Your task to perform on an android device: open wifi settings Image 0: 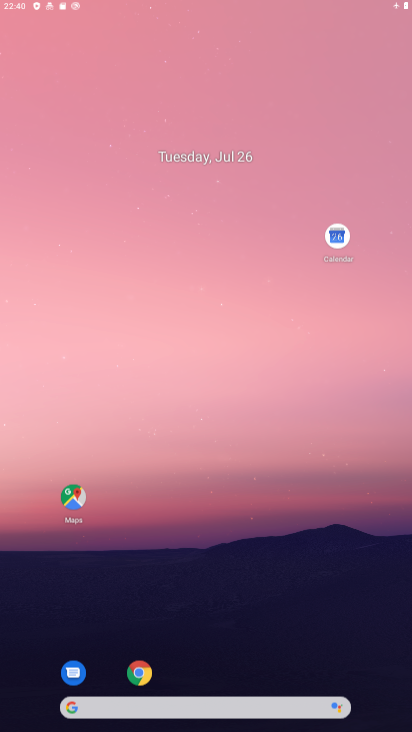
Step 0: click (205, 19)
Your task to perform on an android device: open wifi settings Image 1: 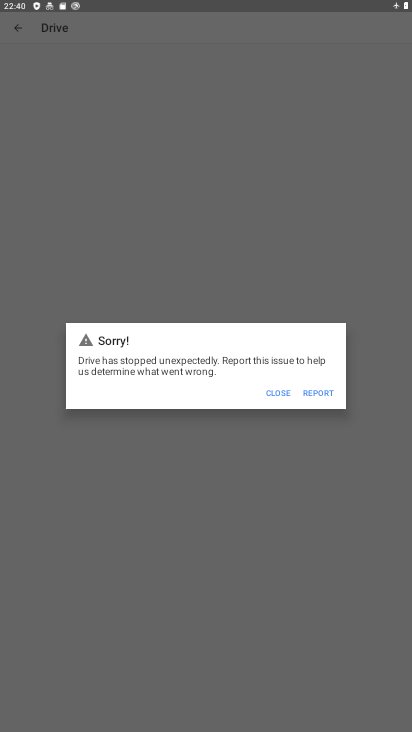
Step 1: drag from (216, 552) to (202, 46)
Your task to perform on an android device: open wifi settings Image 2: 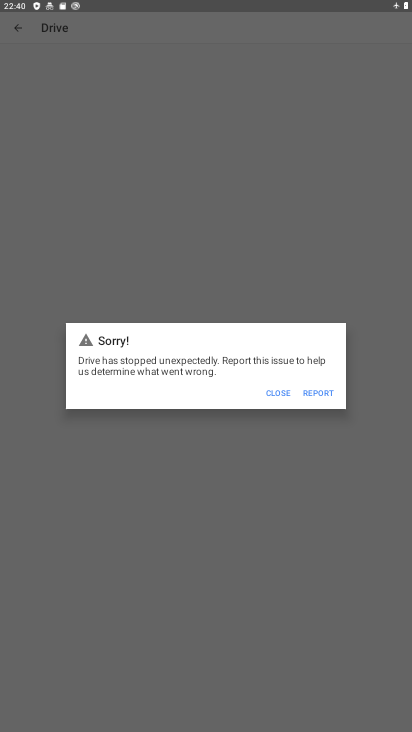
Step 2: drag from (278, 540) to (208, 43)
Your task to perform on an android device: open wifi settings Image 3: 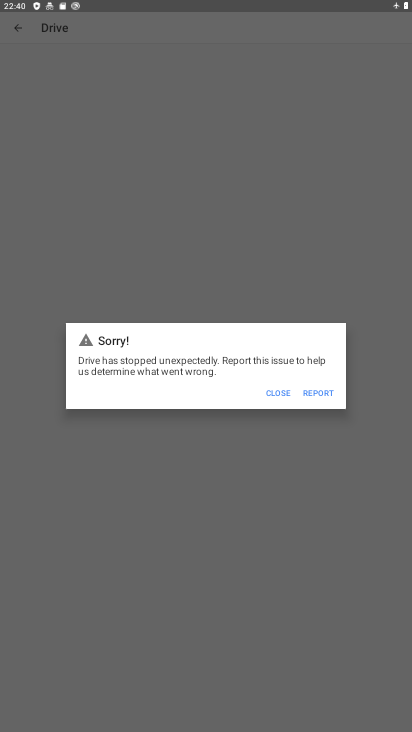
Step 3: click (277, 391)
Your task to perform on an android device: open wifi settings Image 4: 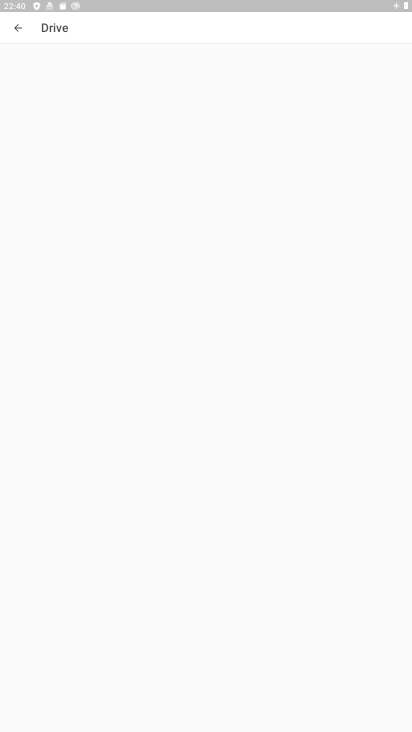
Step 4: click (277, 391)
Your task to perform on an android device: open wifi settings Image 5: 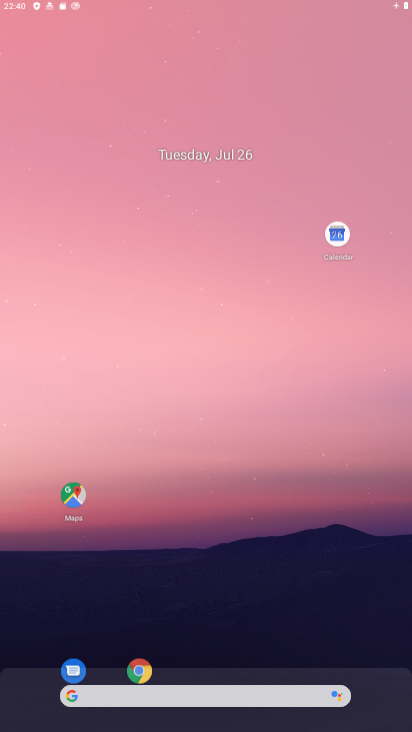
Step 5: drag from (230, 493) to (102, 2)
Your task to perform on an android device: open wifi settings Image 6: 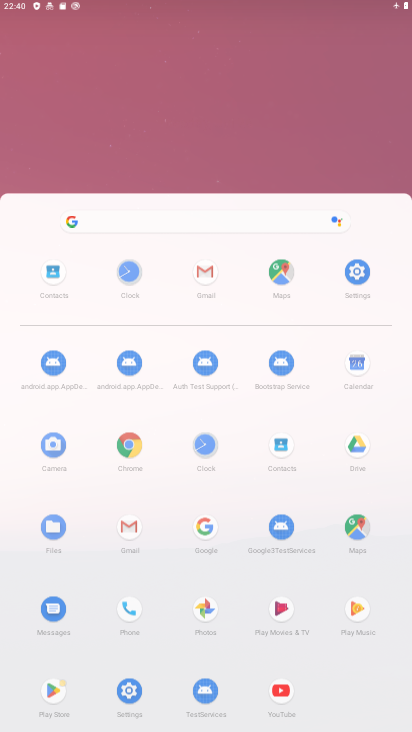
Step 6: click (176, 7)
Your task to perform on an android device: open wifi settings Image 7: 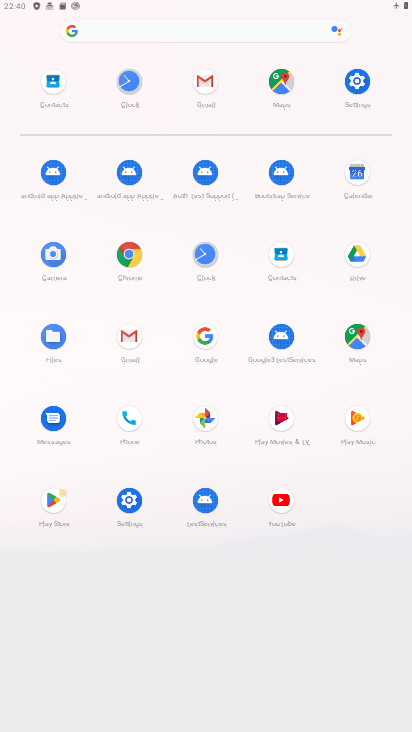
Step 7: drag from (188, 359) to (172, 33)
Your task to perform on an android device: open wifi settings Image 8: 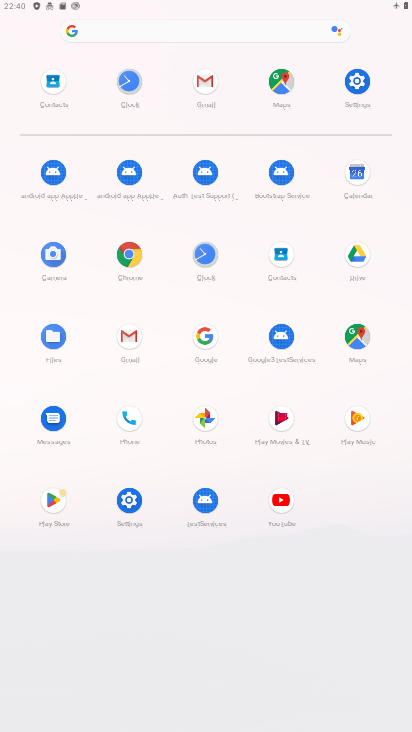
Step 8: click (357, 83)
Your task to perform on an android device: open wifi settings Image 9: 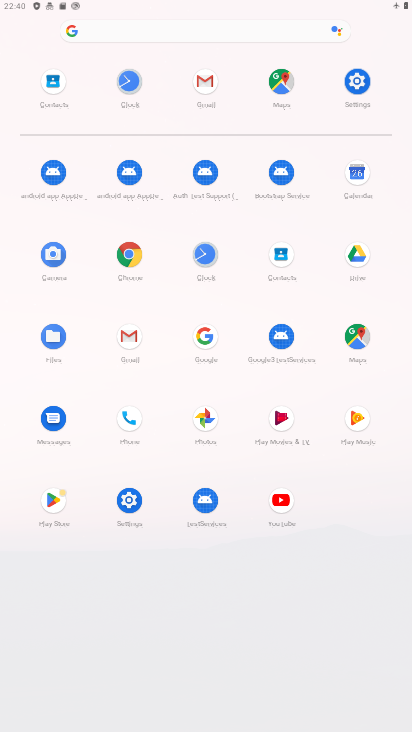
Step 9: click (357, 80)
Your task to perform on an android device: open wifi settings Image 10: 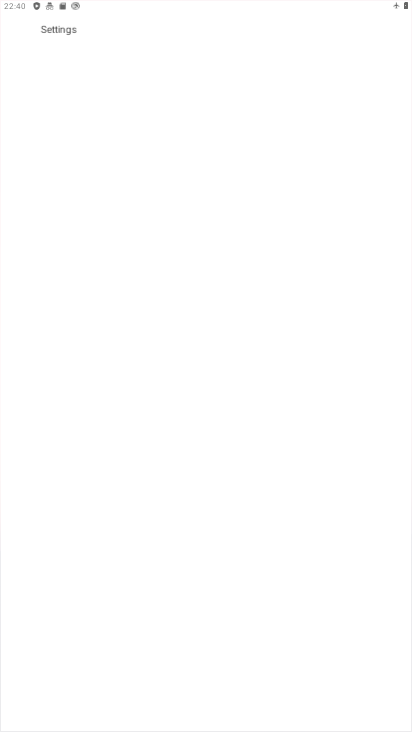
Step 10: click (357, 80)
Your task to perform on an android device: open wifi settings Image 11: 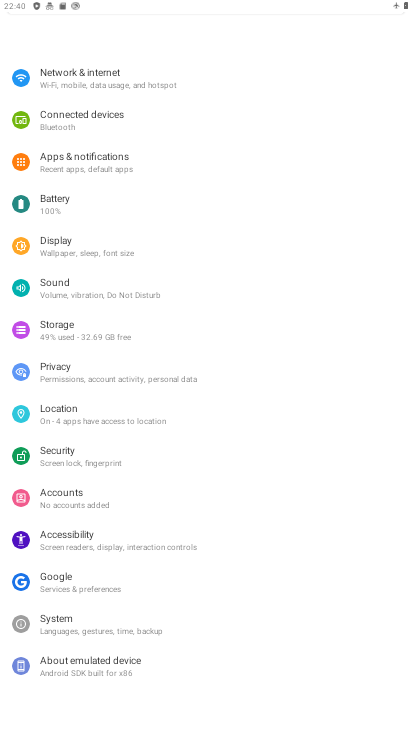
Step 11: click (358, 82)
Your task to perform on an android device: open wifi settings Image 12: 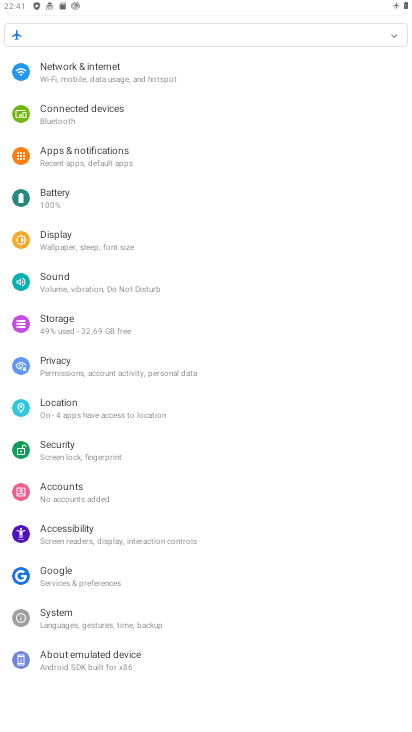
Step 12: click (76, 61)
Your task to perform on an android device: open wifi settings Image 13: 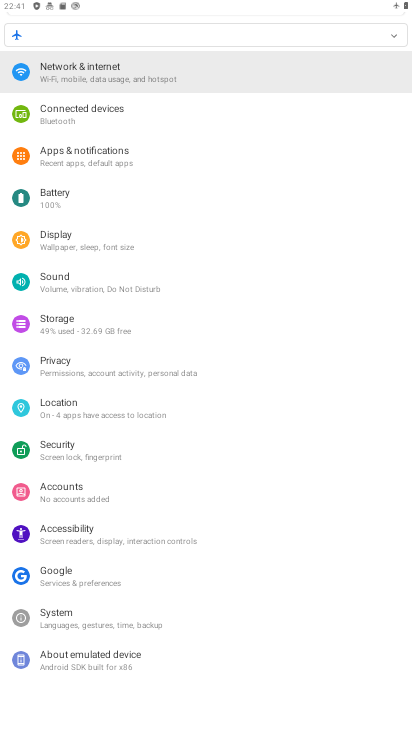
Step 13: click (77, 70)
Your task to perform on an android device: open wifi settings Image 14: 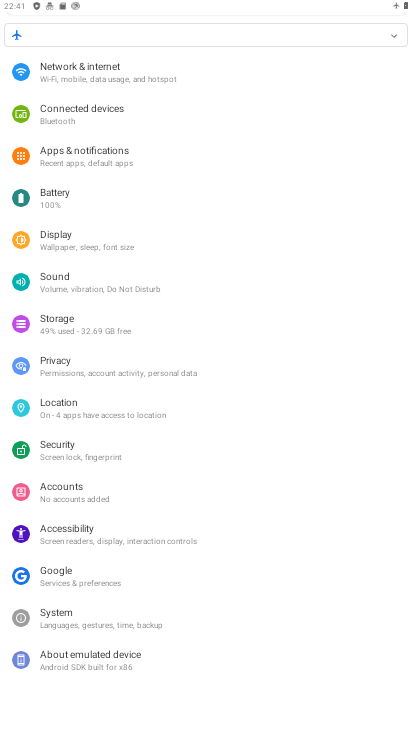
Step 14: click (77, 70)
Your task to perform on an android device: open wifi settings Image 15: 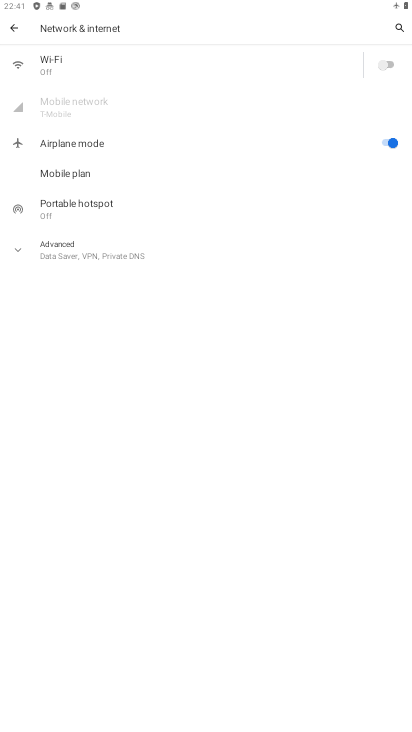
Step 15: click (384, 65)
Your task to perform on an android device: open wifi settings Image 16: 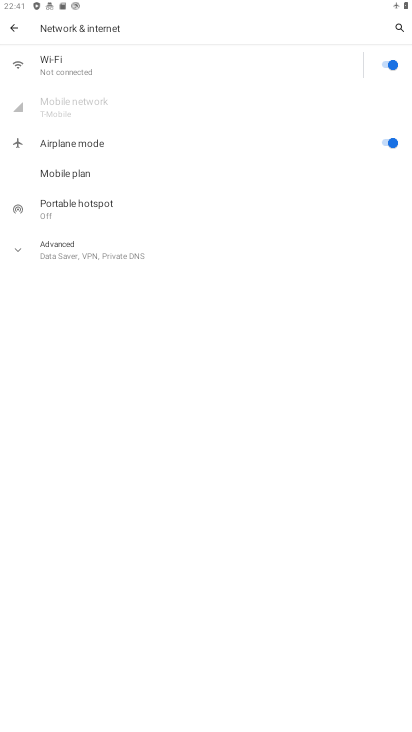
Step 16: click (393, 139)
Your task to perform on an android device: open wifi settings Image 17: 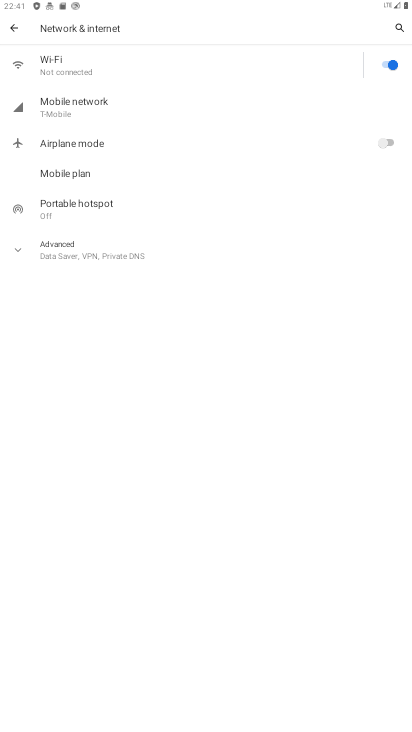
Step 17: task complete